Your task to perform on an android device: turn smart compose on in the gmail app Image 0: 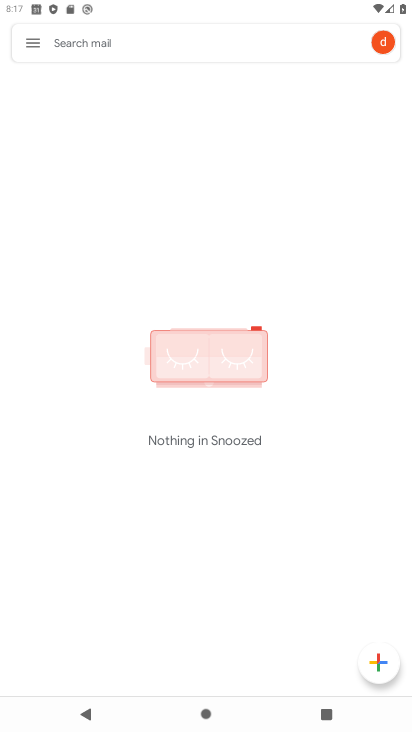
Step 0: click (30, 47)
Your task to perform on an android device: turn smart compose on in the gmail app Image 1: 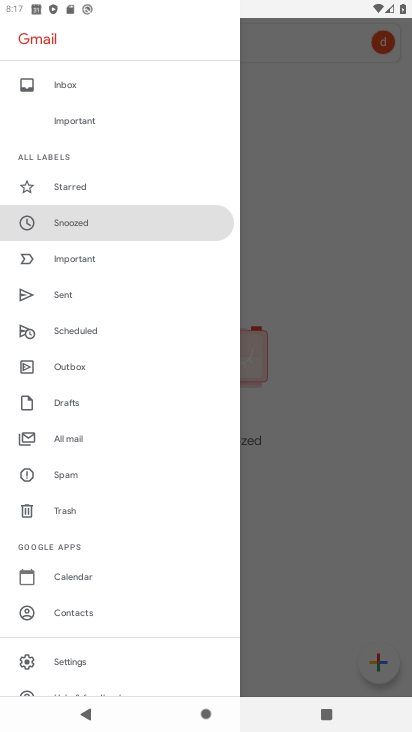
Step 1: click (78, 663)
Your task to perform on an android device: turn smart compose on in the gmail app Image 2: 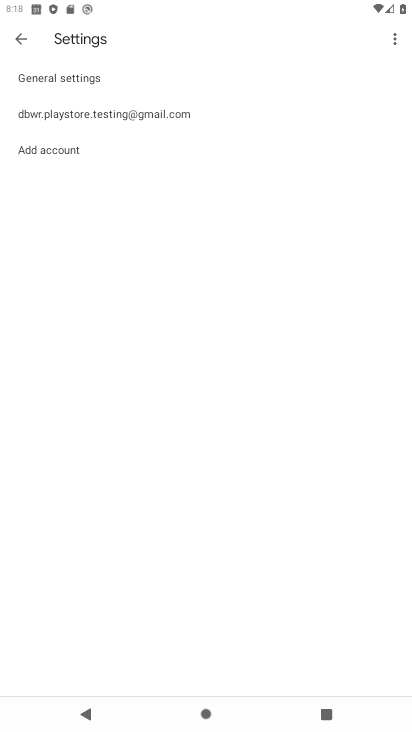
Step 2: click (104, 109)
Your task to perform on an android device: turn smart compose on in the gmail app Image 3: 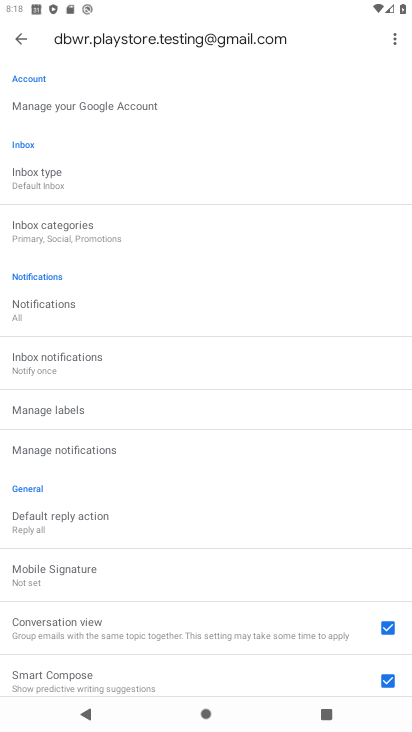
Step 3: task complete